Your task to perform on an android device: What's on my calendar tomorrow? Image 0: 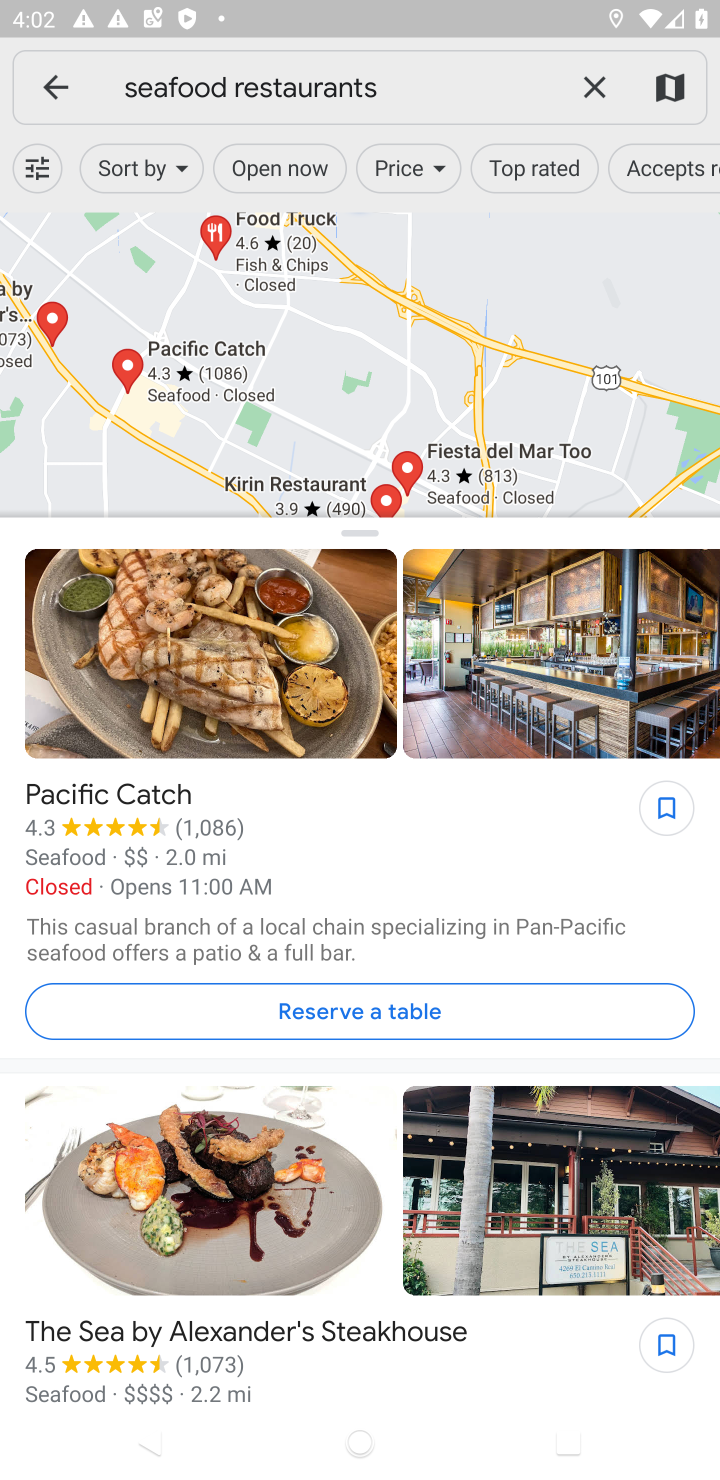
Step 0: press home button
Your task to perform on an android device: What's on my calendar tomorrow? Image 1: 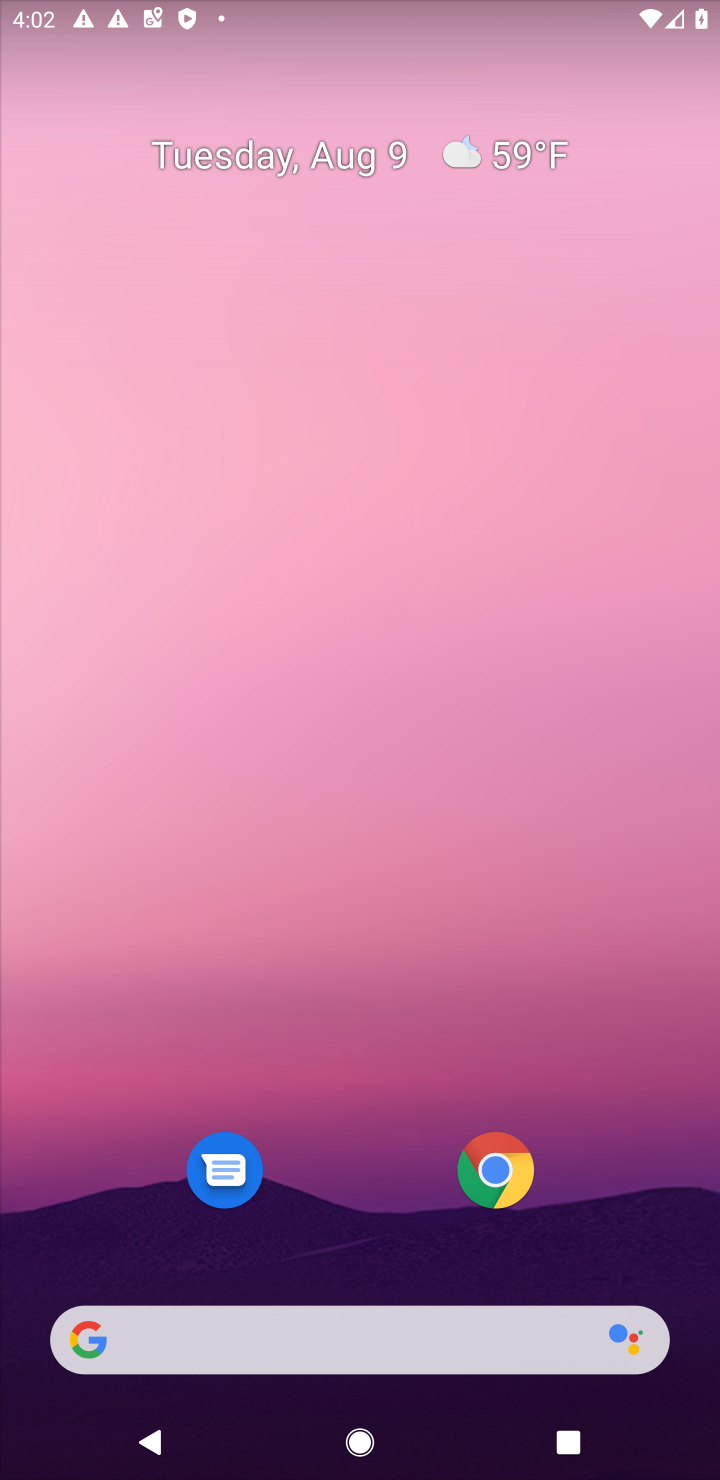
Step 1: drag from (202, 321) to (211, 145)
Your task to perform on an android device: What's on my calendar tomorrow? Image 2: 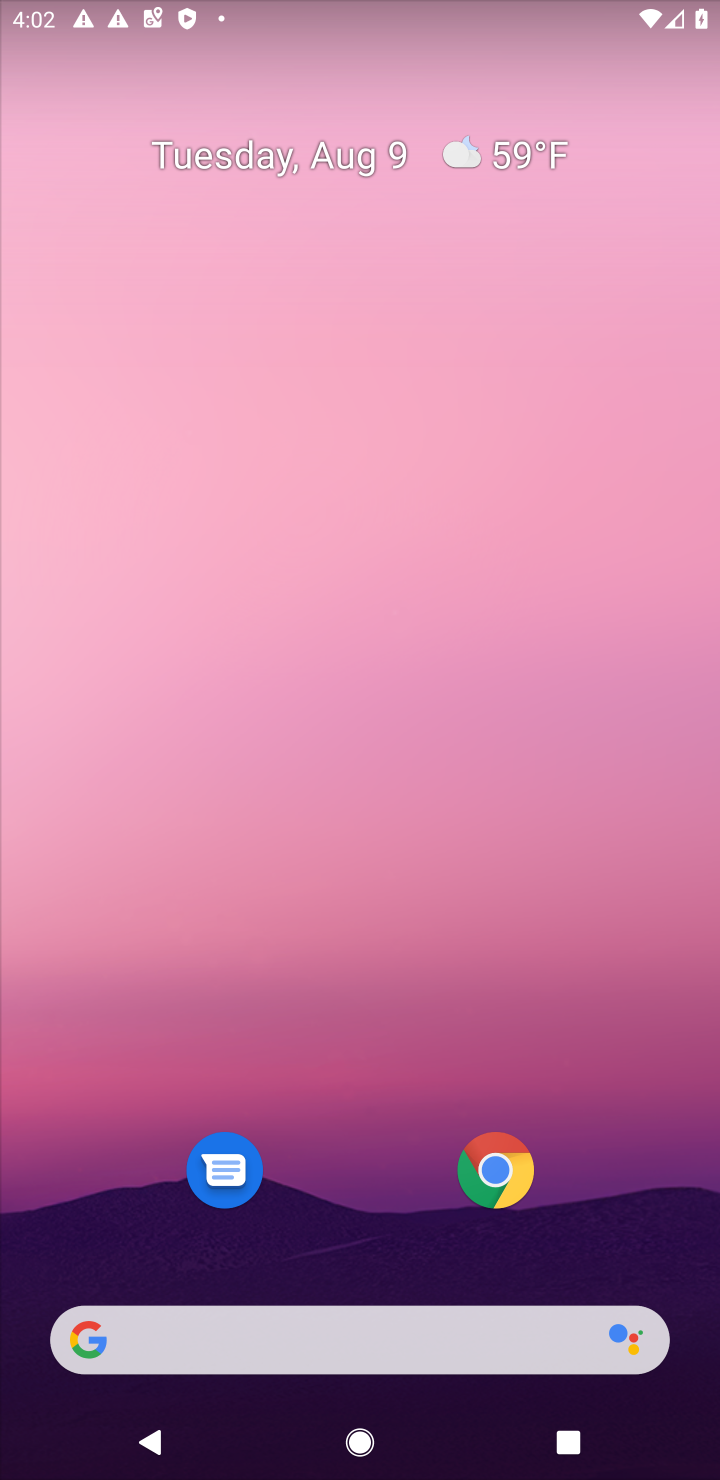
Step 2: drag from (383, 1235) to (285, 111)
Your task to perform on an android device: What's on my calendar tomorrow? Image 3: 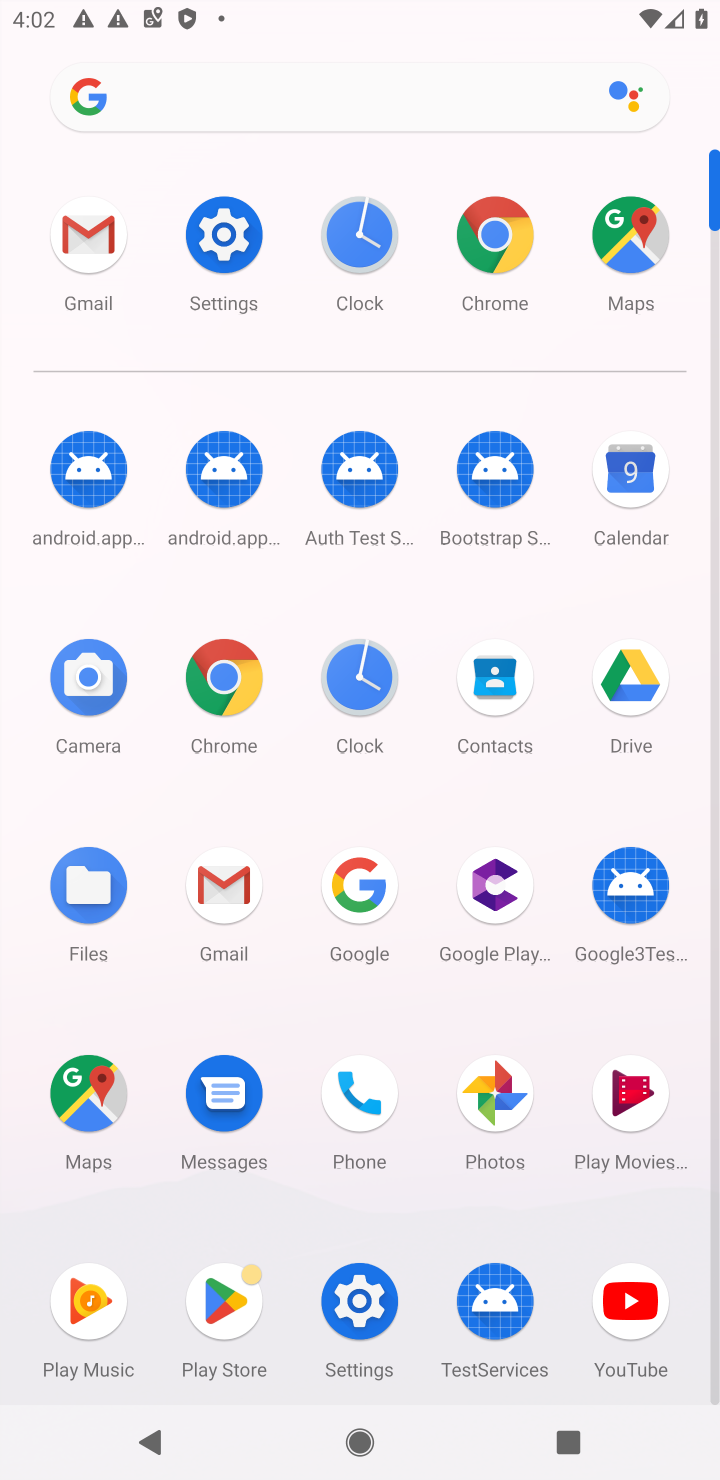
Step 3: click (625, 464)
Your task to perform on an android device: What's on my calendar tomorrow? Image 4: 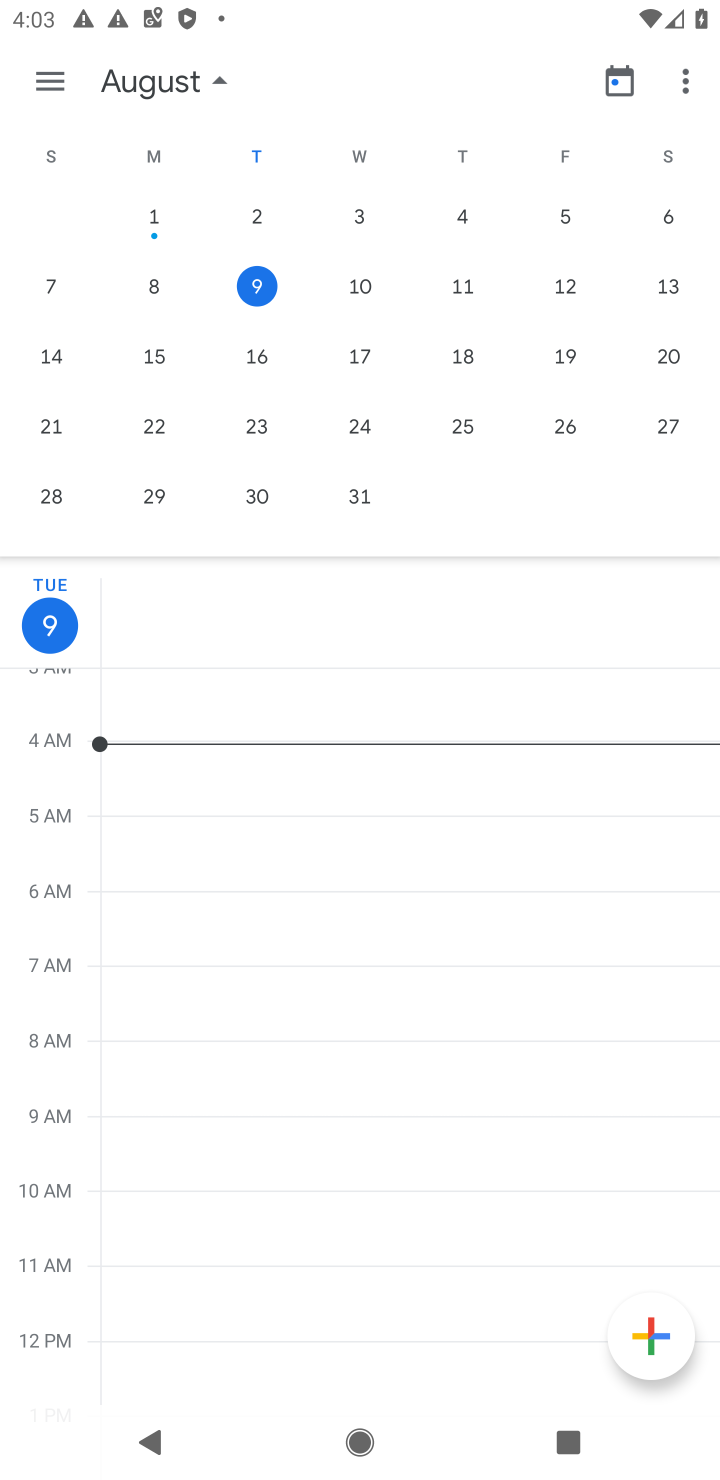
Step 4: click (348, 292)
Your task to perform on an android device: What's on my calendar tomorrow? Image 5: 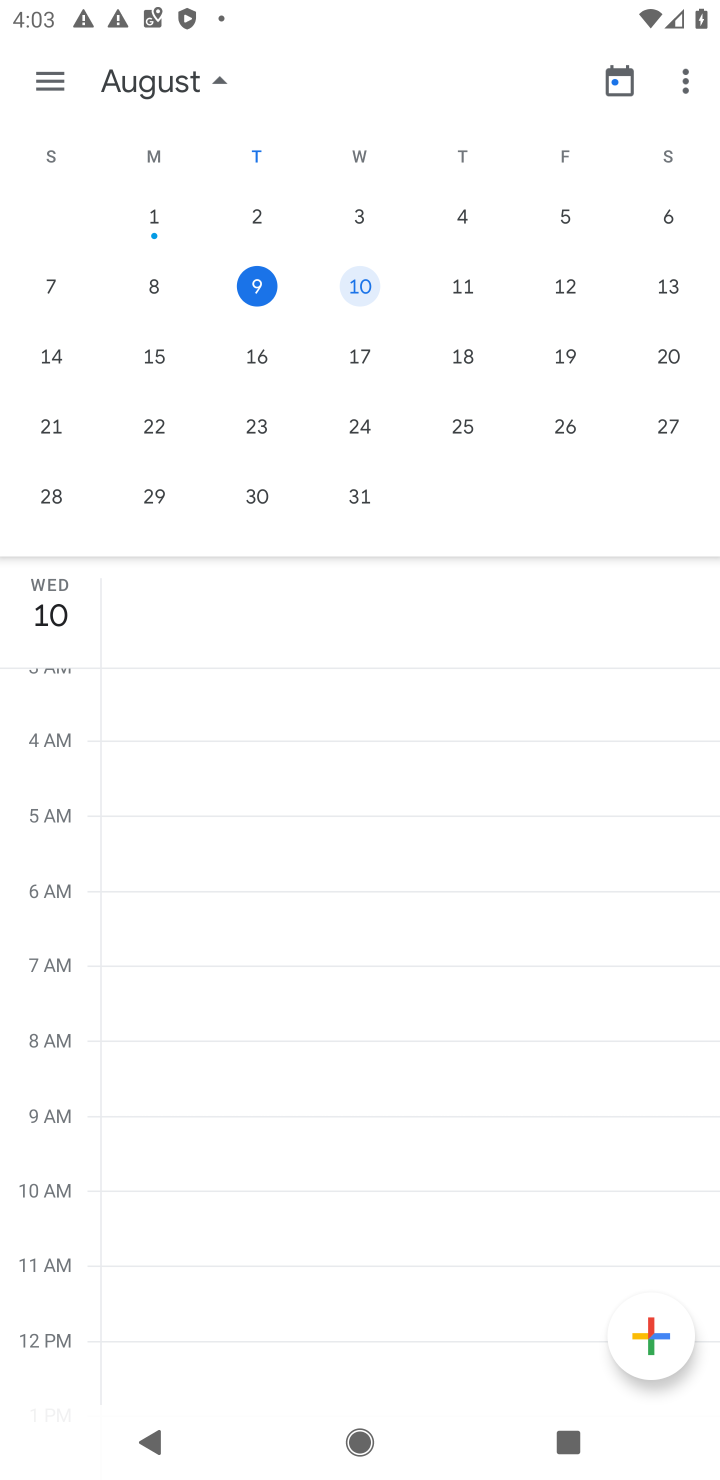
Step 5: click (362, 271)
Your task to perform on an android device: What's on my calendar tomorrow? Image 6: 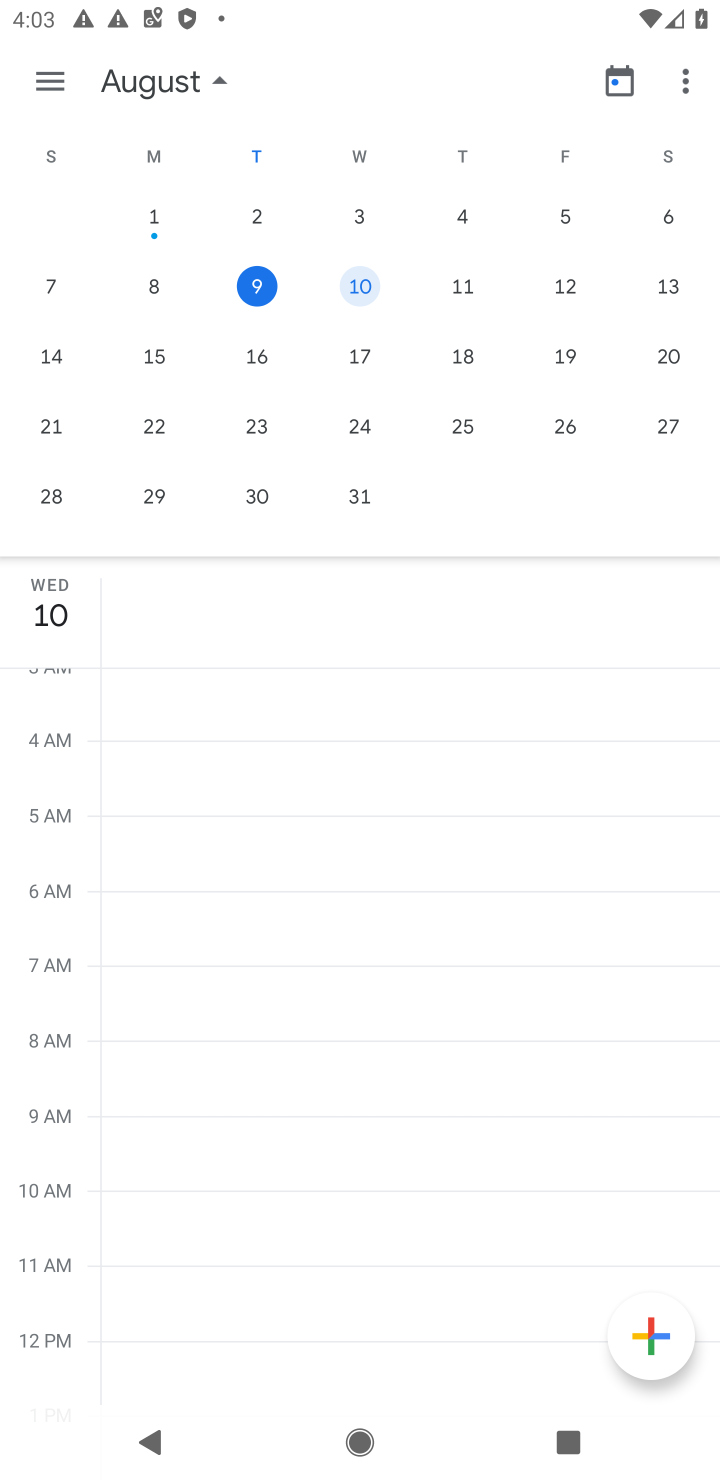
Step 6: click (355, 289)
Your task to perform on an android device: What's on my calendar tomorrow? Image 7: 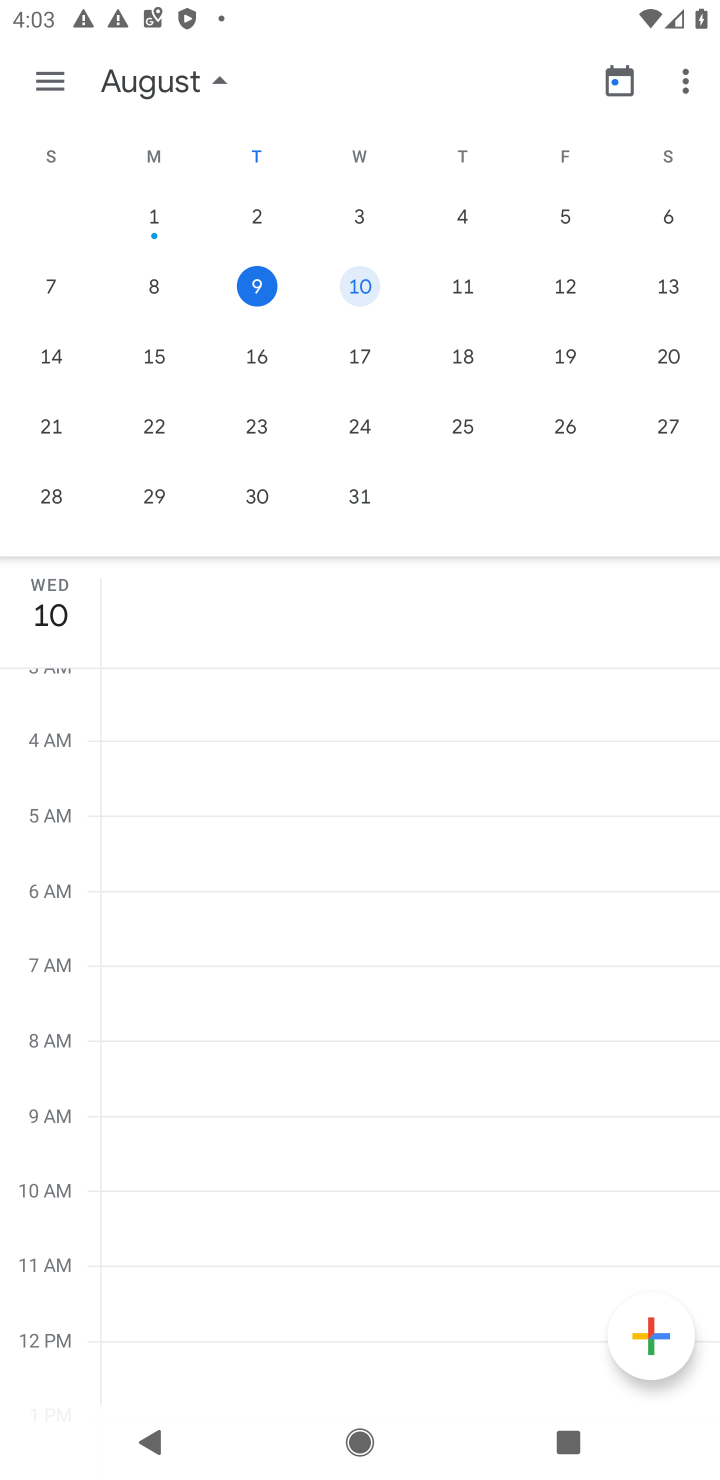
Step 7: click (371, 295)
Your task to perform on an android device: What's on my calendar tomorrow? Image 8: 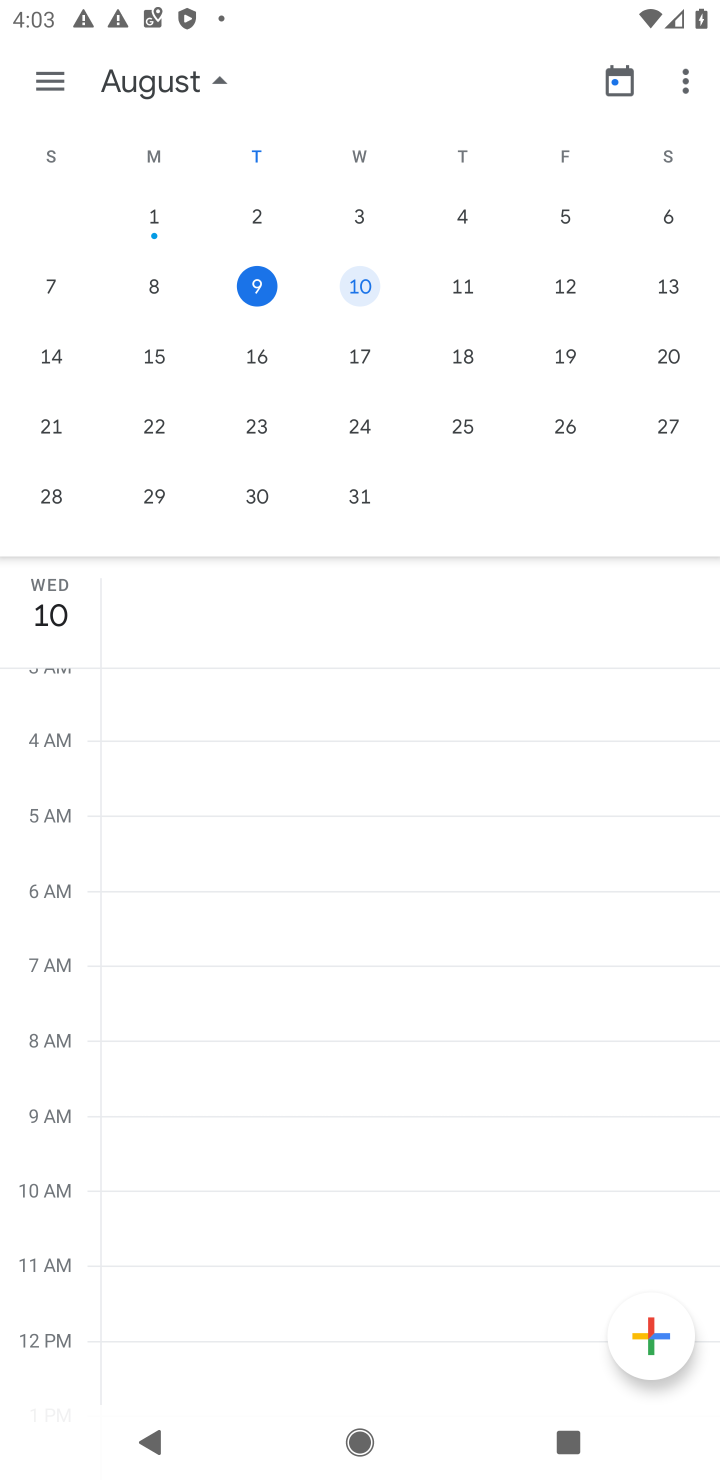
Step 8: task complete